Your task to perform on an android device: turn on the 12-hour format for clock Image 0: 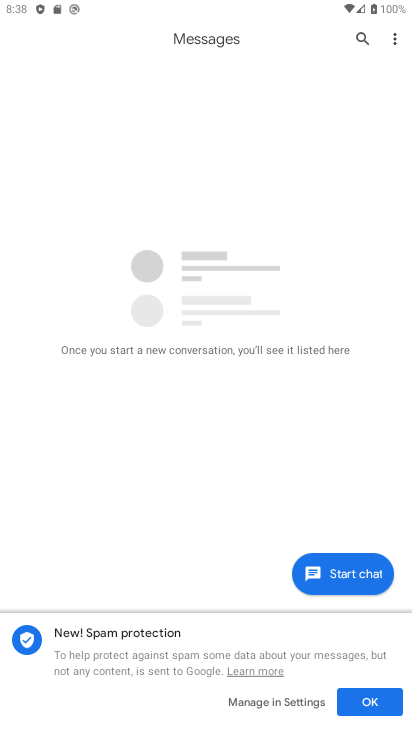
Step 0: press home button
Your task to perform on an android device: turn on the 12-hour format for clock Image 1: 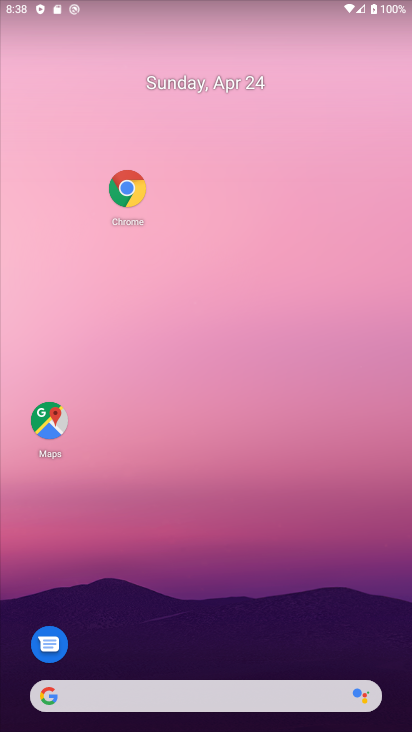
Step 1: drag from (227, 572) to (256, 227)
Your task to perform on an android device: turn on the 12-hour format for clock Image 2: 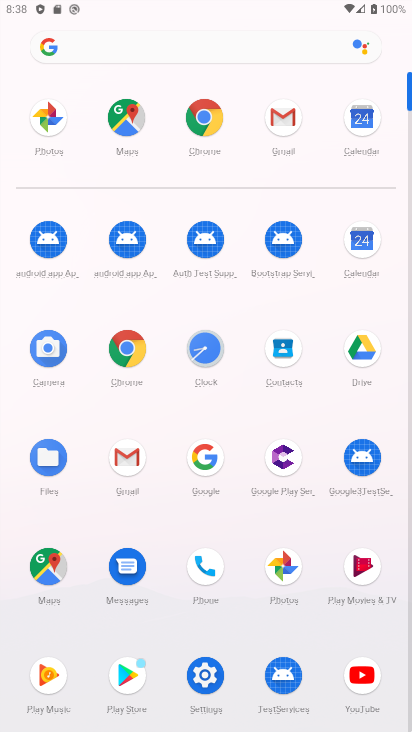
Step 2: click (206, 348)
Your task to perform on an android device: turn on the 12-hour format for clock Image 3: 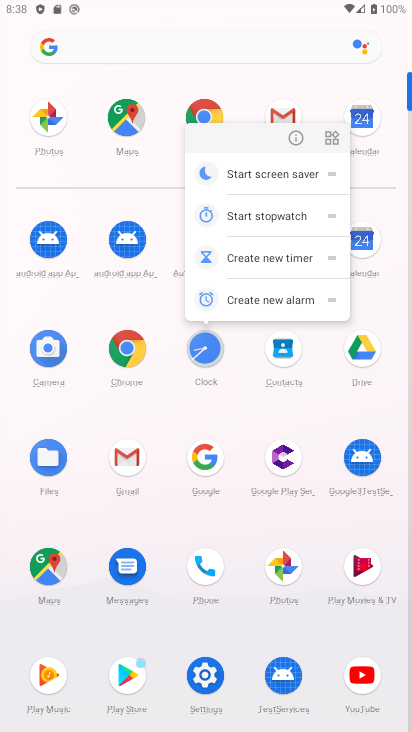
Step 3: click (294, 140)
Your task to perform on an android device: turn on the 12-hour format for clock Image 4: 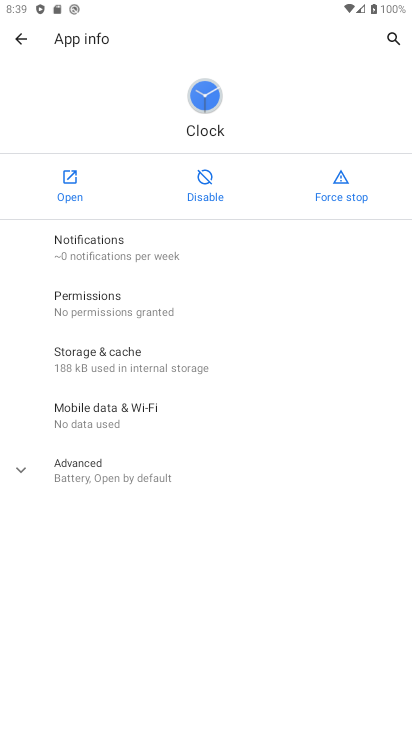
Step 4: click (77, 178)
Your task to perform on an android device: turn on the 12-hour format for clock Image 5: 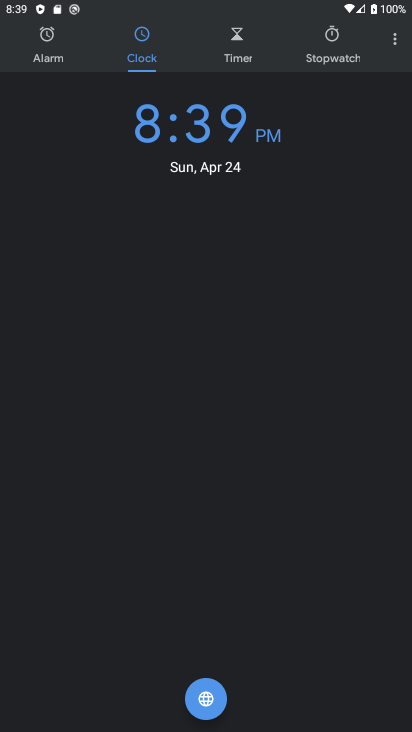
Step 5: drag from (396, 41) to (344, 79)
Your task to perform on an android device: turn on the 12-hour format for clock Image 6: 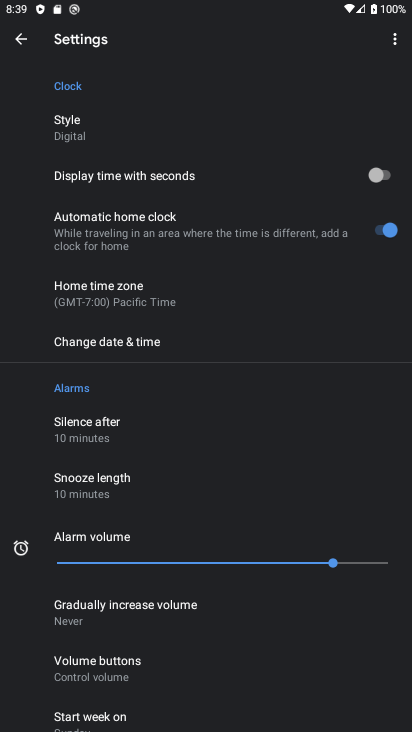
Step 6: click (190, 339)
Your task to perform on an android device: turn on the 12-hour format for clock Image 7: 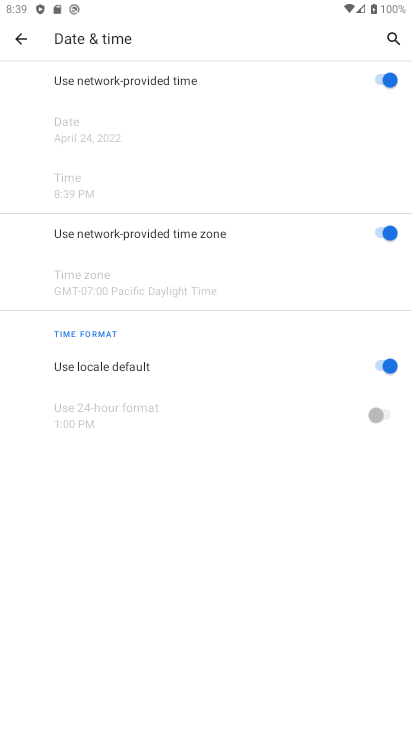
Step 7: task complete